Your task to perform on an android device: Search for Italian restaurants on Maps Image 0: 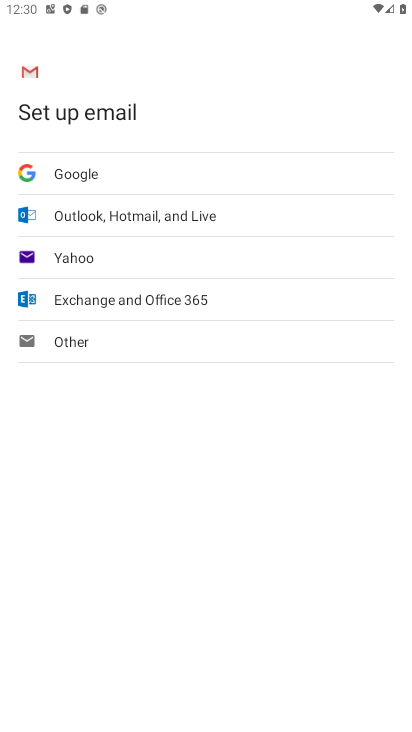
Step 0: press home button
Your task to perform on an android device: Search for Italian restaurants on Maps Image 1: 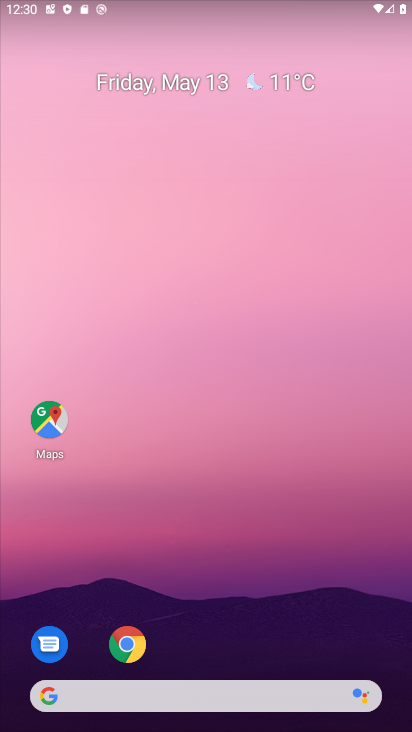
Step 1: drag from (224, 718) to (224, 121)
Your task to perform on an android device: Search for Italian restaurants on Maps Image 2: 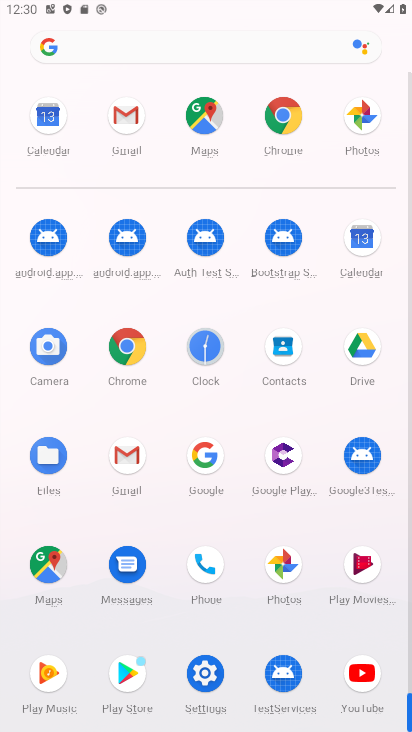
Step 2: click (43, 569)
Your task to perform on an android device: Search for Italian restaurants on Maps Image 3: 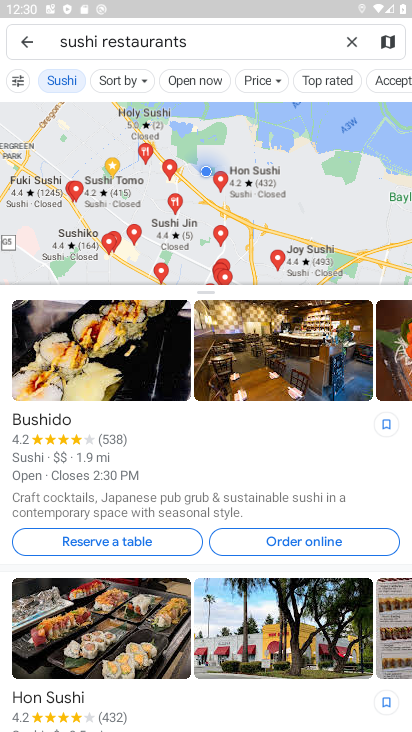
Step 3: click (353, 38)
Your task to perform on an android device: Search for Italian restaurants on Maps Image 4: 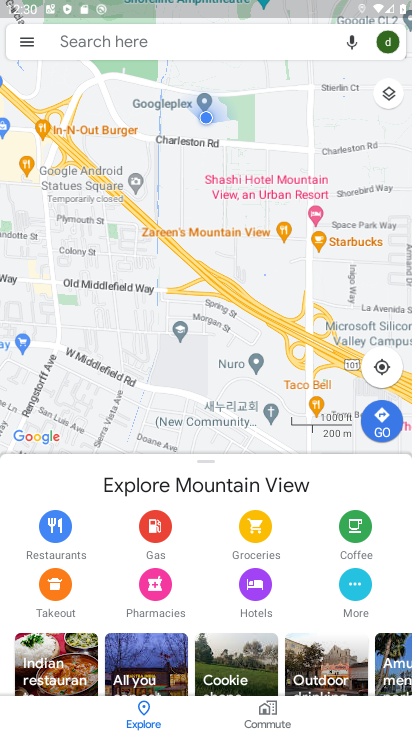
Step 4: click (144, 41)
Your task to perform on an android device: Search for Italian restaurants on Maps Image 5: 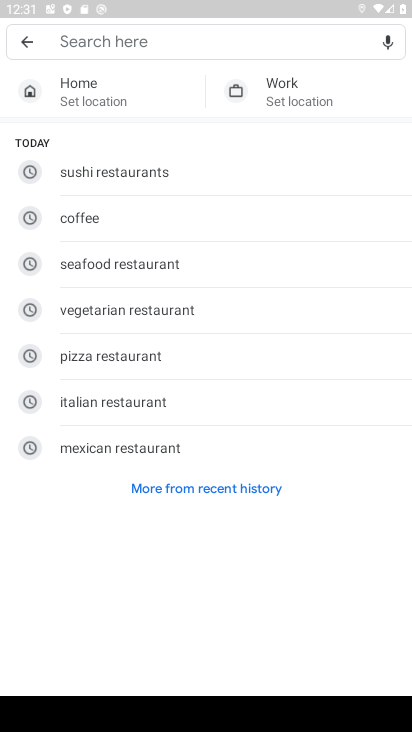
Step 5: type "Italian restaurants"
Your task to perform on an android device: Search for Italian restaurants on Maps Image 6: 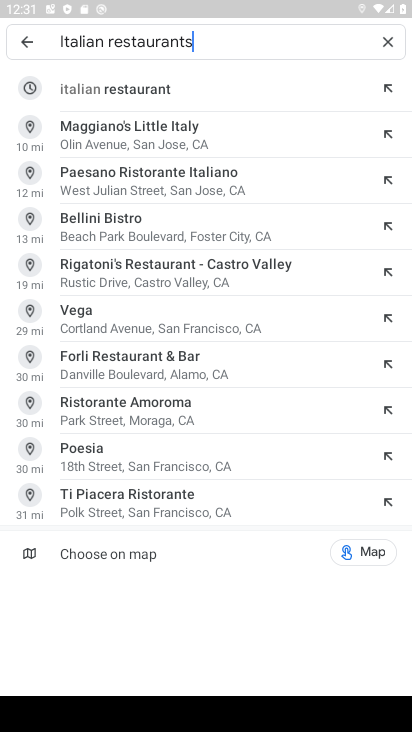
Step 6: click (137, 85)
Your task to perform on an android device: Search for Italian restaurants on Maps Image 7: 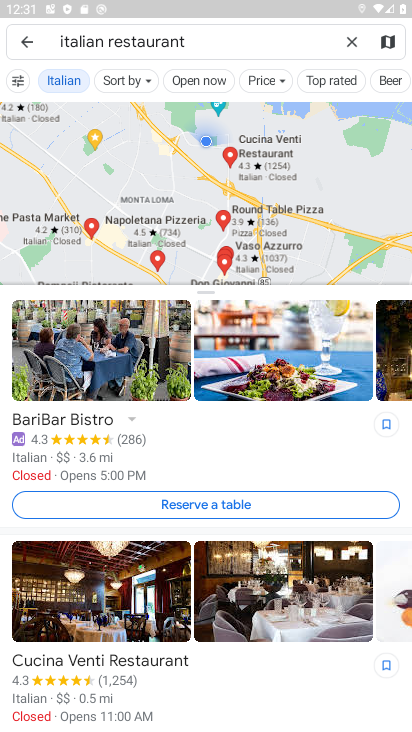
Step 7: task complete